Your task to perform on an android device: Open the calendar and show me this week's events? Image 0: 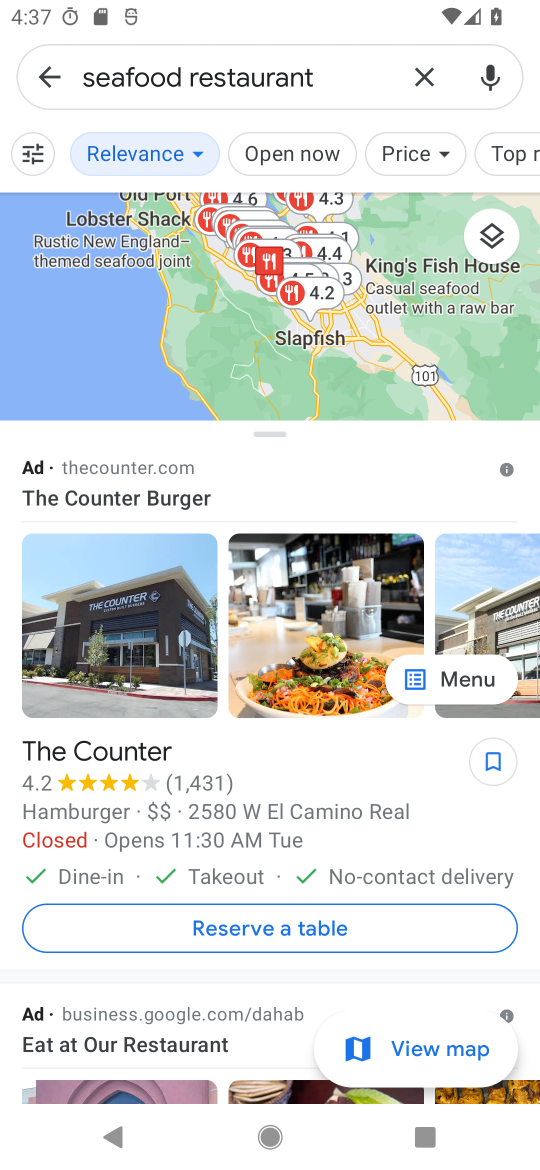
Step 0: click (45, 80)
Your task to perform on an android device: Open the calendar and show me this week's events? Image 1: 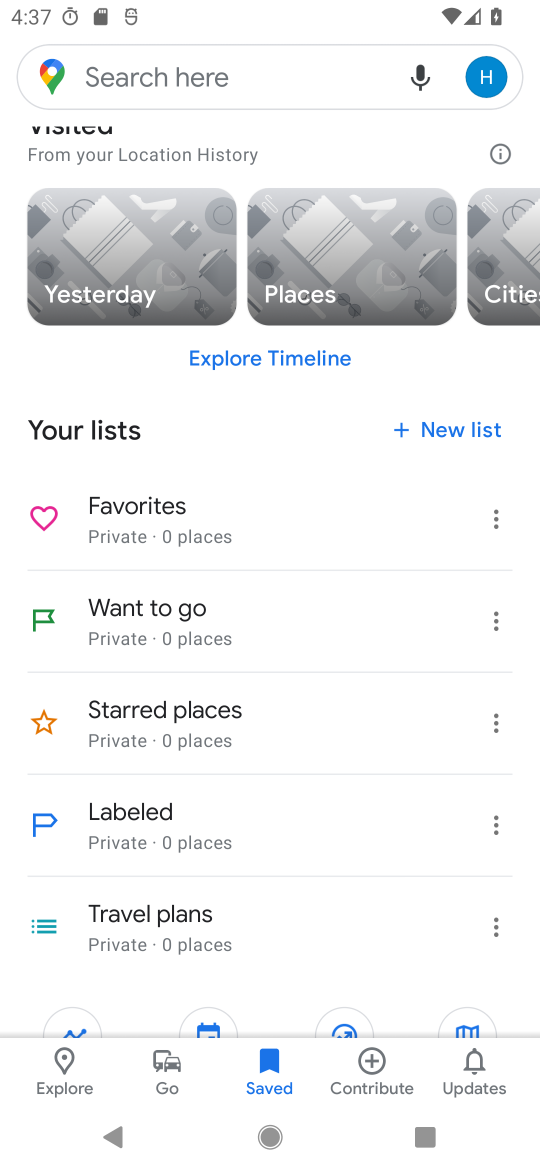
Step 1: click (211, 87)
Your task to perform on an android device: Open the calendar and show me this week's events? Image 2: 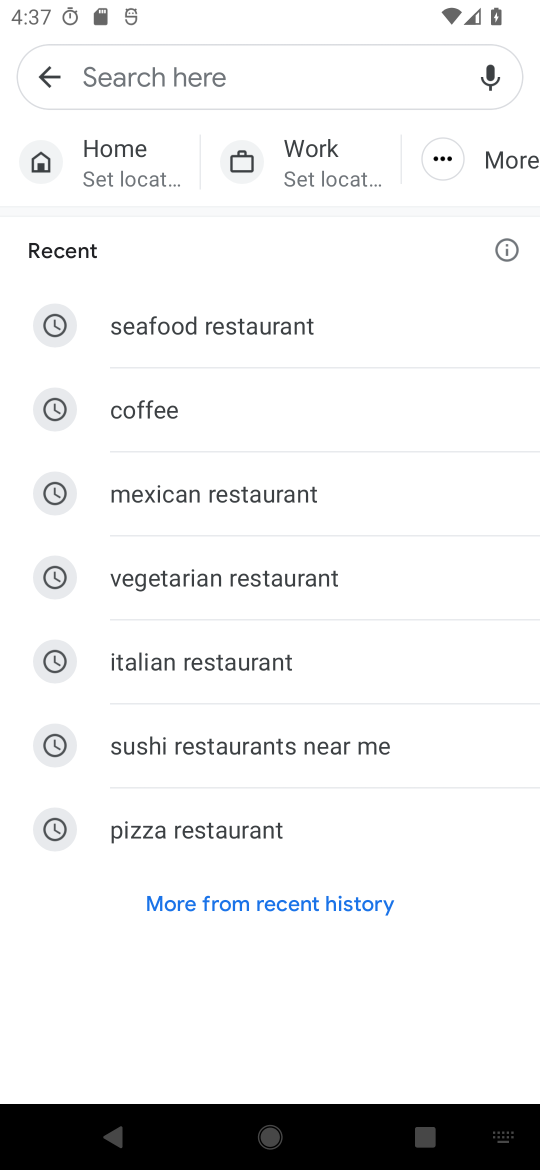
Step 2: press home button
Your task to perform on an android device: Open the calendar and show me this week's events? Image 3: 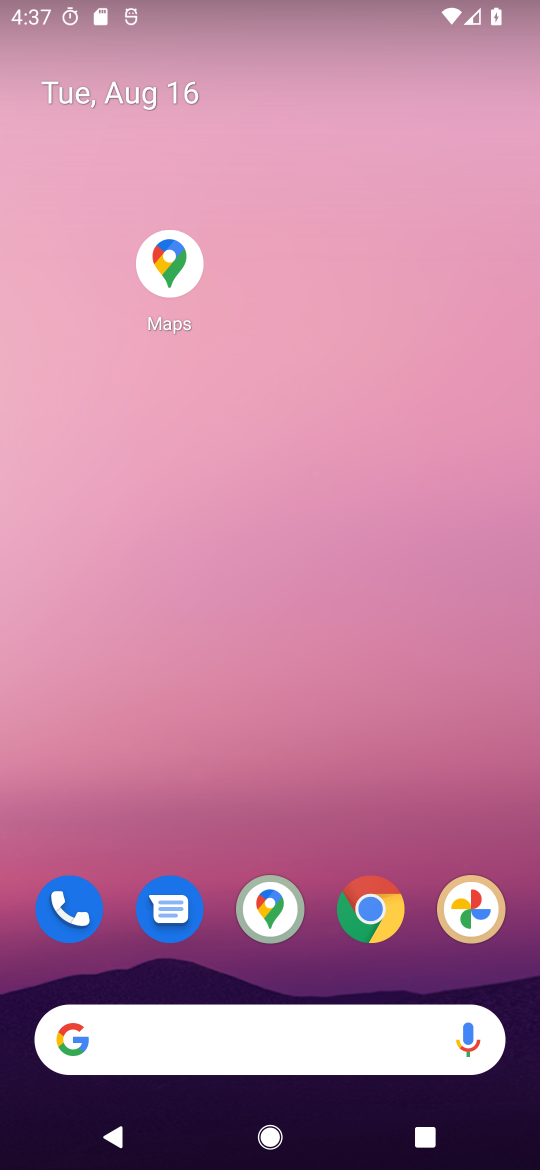
Step 3: drag from (194, 867) to (202, 389)
Your task to perform on an android device: Open the calendar and show me this week's events? Image 4: 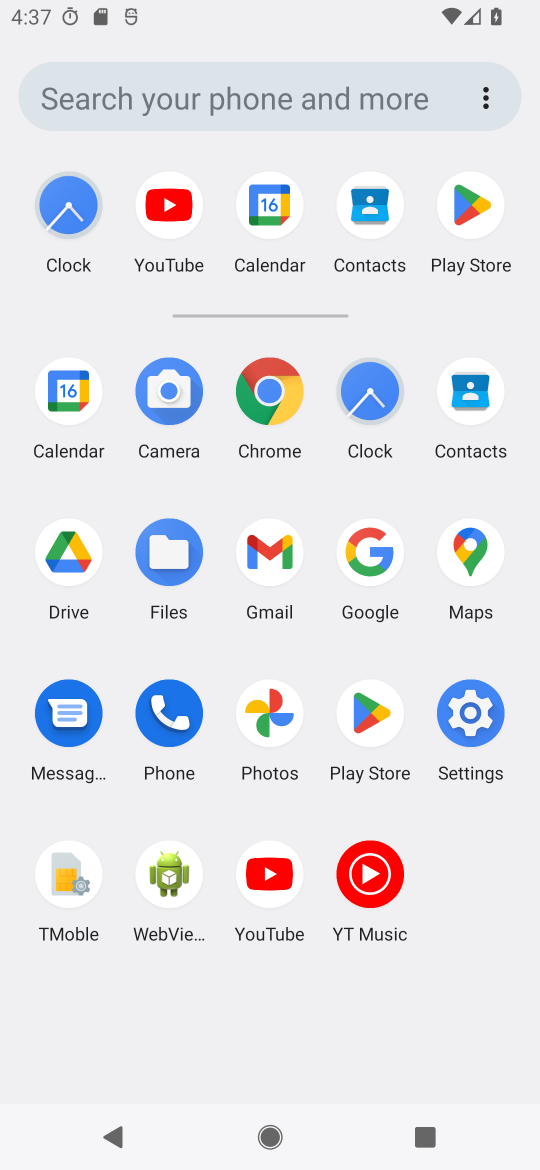
Step 4: click (67, 389)
Your task to perform on an android device: Open the calendar and show me this week's events? Image 5: 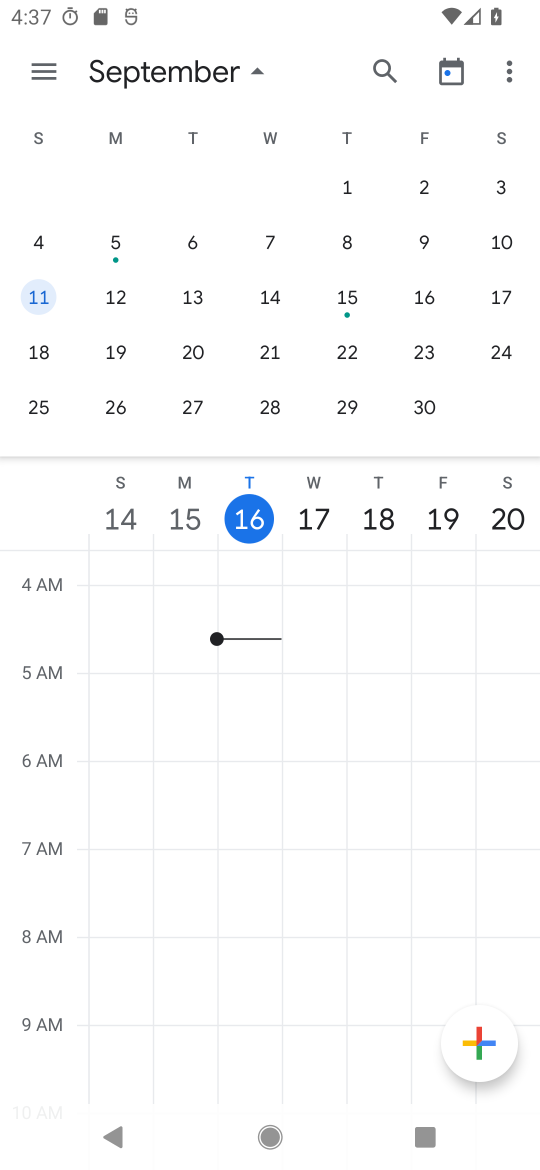
Step 5: task complete